Your task to perform on an android device: Open the phone app and click the voicemail tab. Image 0: 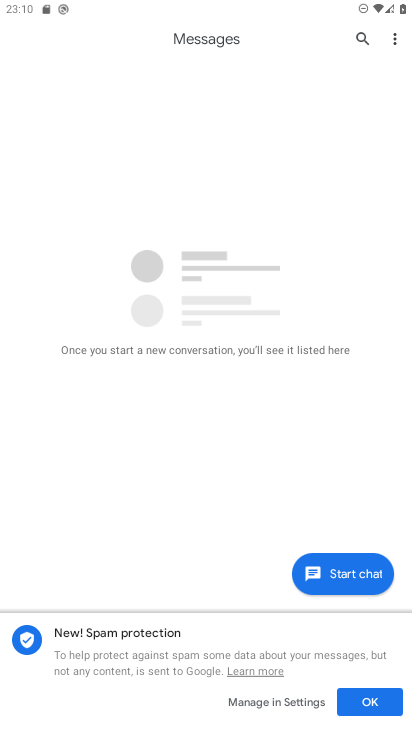
Step 0: press home button
Your task to perform on an android device: Open the phone app and click the voicemail tab. Image 1: 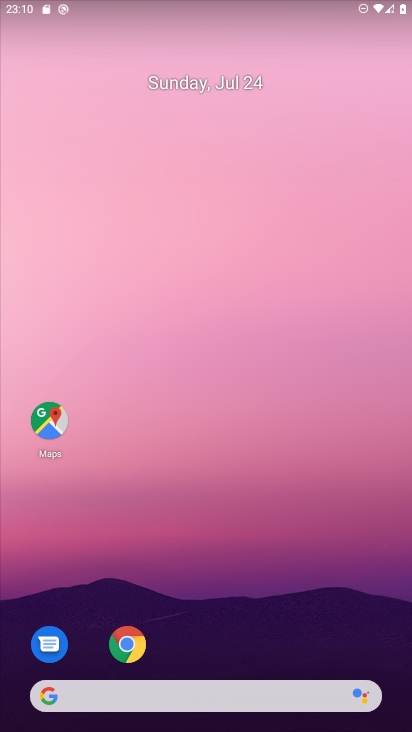
Step 1: drag from (344, 650) to (331, 218)
Your task to perform on an android device: Open the phone app and click the voicemail tab. Image 2: 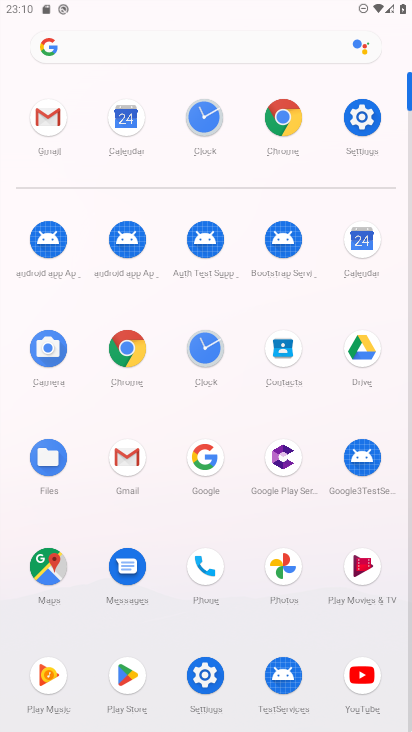
Step 2: click (204, 566)
Your task to perform on an android device: Open the phone app and click the voicemail tab. Image 3: 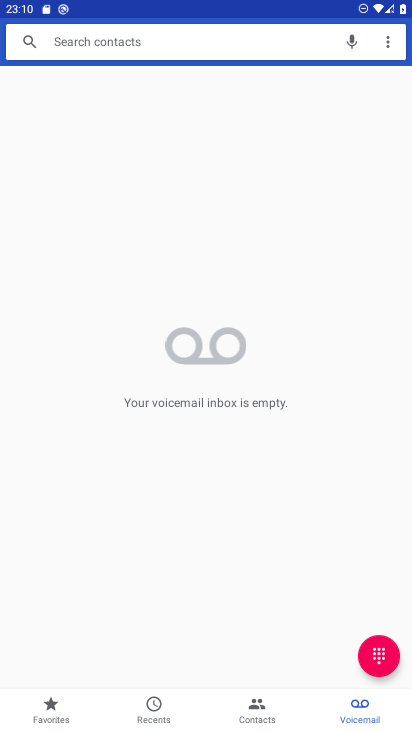
Step 3: click (366, 711)
Your task to perform on an android device: Open the phone app and click the voicemail tab. Image 4: 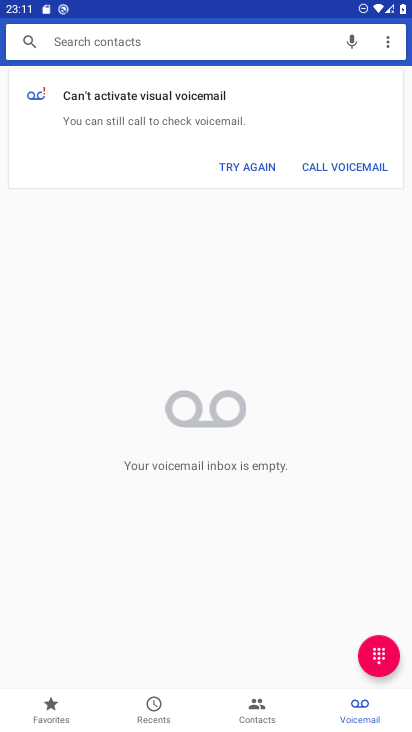
Step 4: task complete